Your task to perform on an android device: Open Wikipedia Image 0: 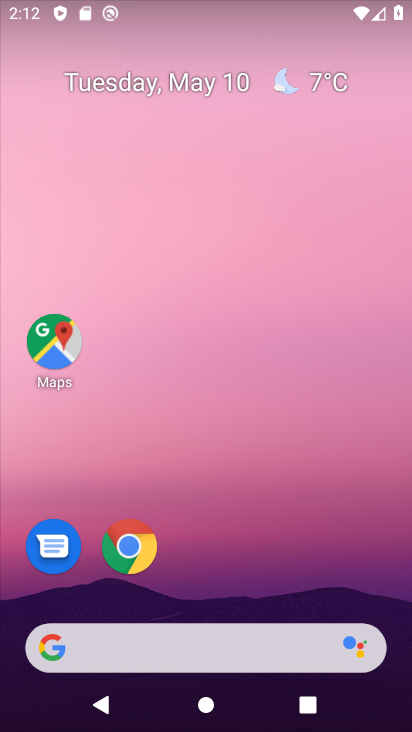
Step 0: click (143, 557)
Your task to perform on an android device: Open Wikipedia Image 1: 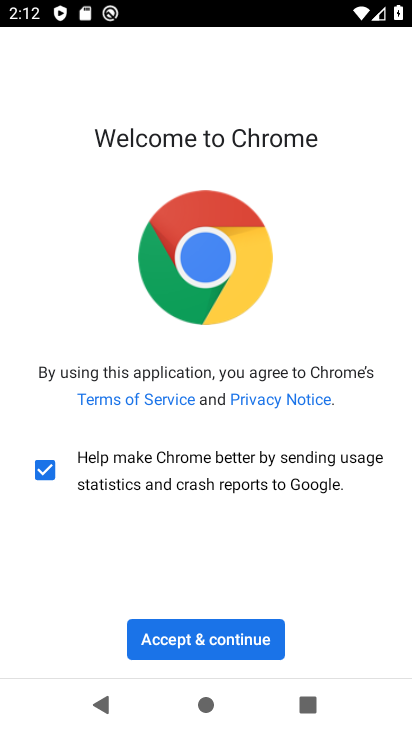
Step 1: click (201, 634)
Your task to perform on an android device: Open Wikipedia Image 2: 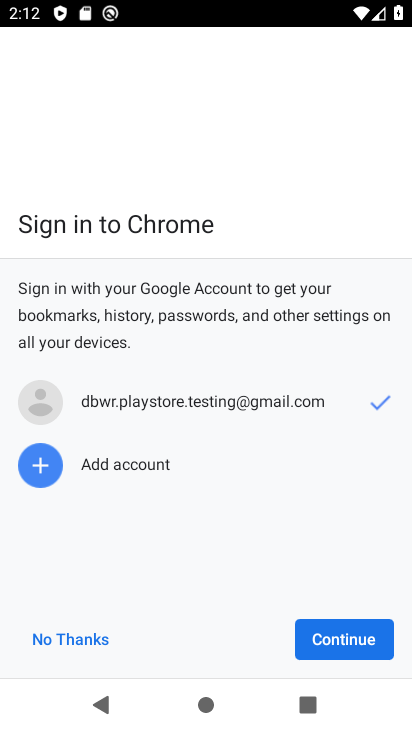
Step 2: click (348, 652)
Your task to perform on an android device: Open Wikipedia Image 3: 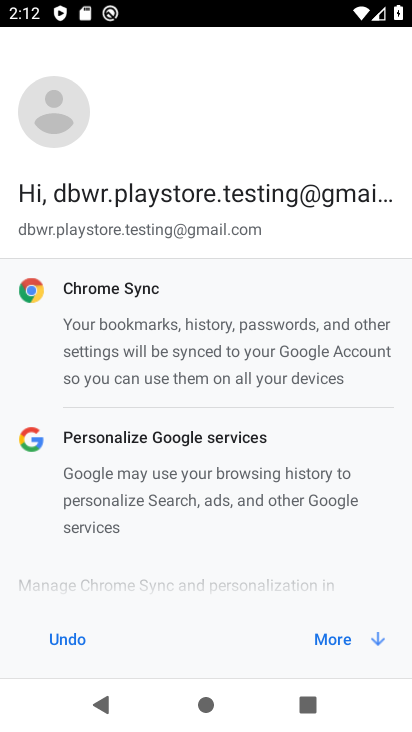
Step 3: click (344, 639)
Your task to perform on an android device: Open Wikipedia Image 4: 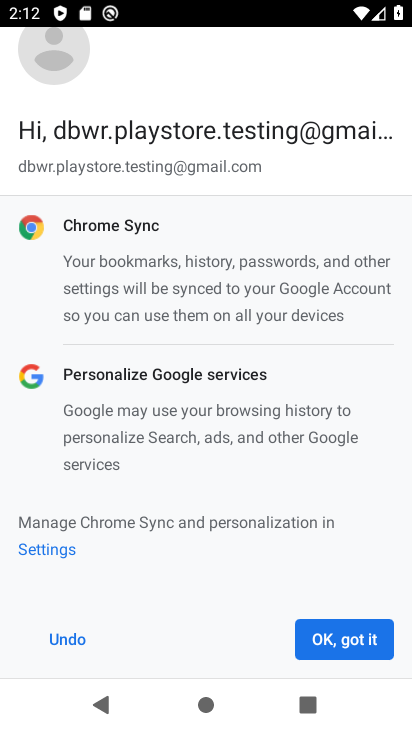
Step 4: click (344, 639)
Your task to perform on an android device: Open Wikipedia Image 5: 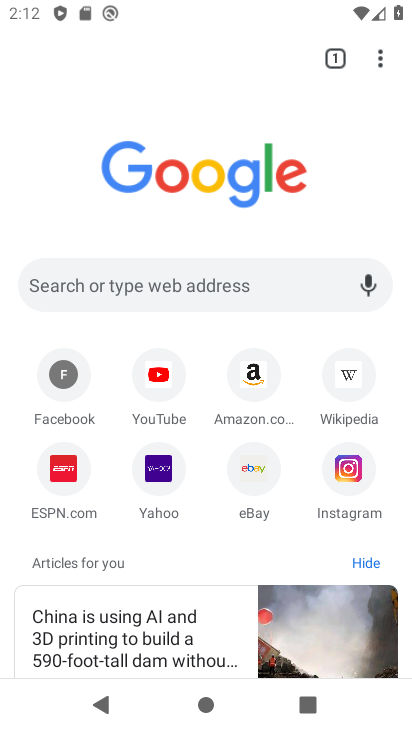
Step 5: click (358, 372)
Your task to perform on an android device: Open Wikipedia Image 6: 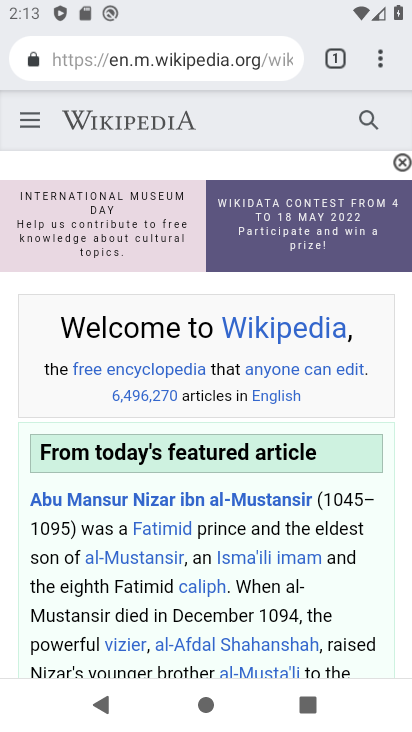
Step 6: task complete